Your task to perform on an android device: turn off sleep mode Image 0: 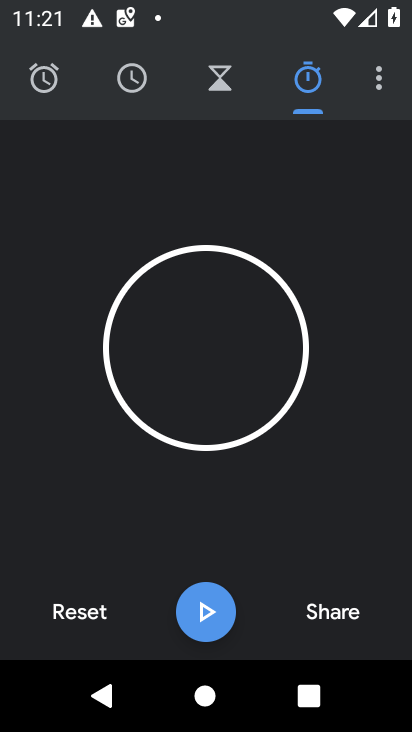
Step 0: press back button
Your task to perform on an android device: turn off sleep mode Image 1: 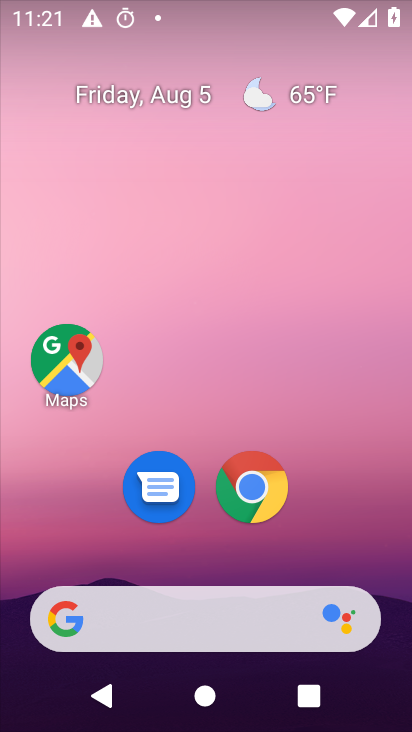
Step 1: drag from (69, 478) to (201, 85)
Your task to perform on an android device: turn off sleep mode Image 2: 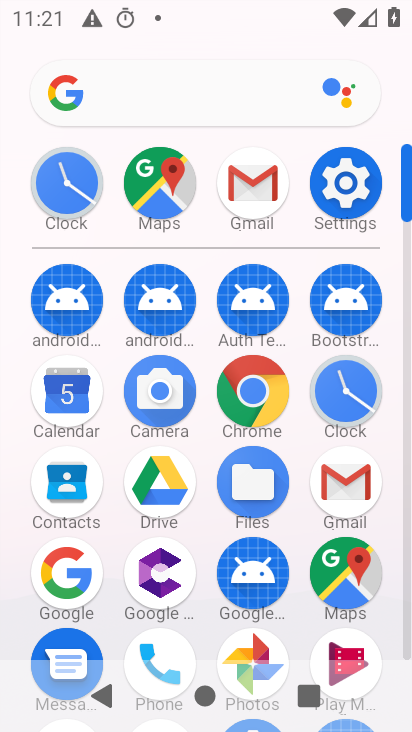
Step 2: click (346, 174)
Your task to perform on an android device: turn off sleep mode Image 3: 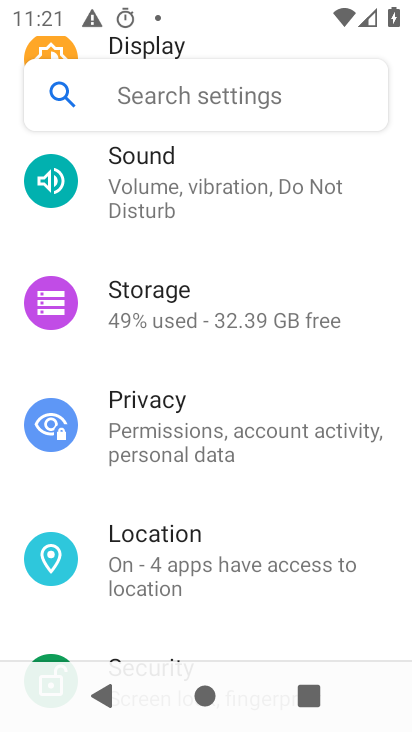
Step 3: click (212, 93)
Your task to perform on an android device: turn off sleep mode Image 4: 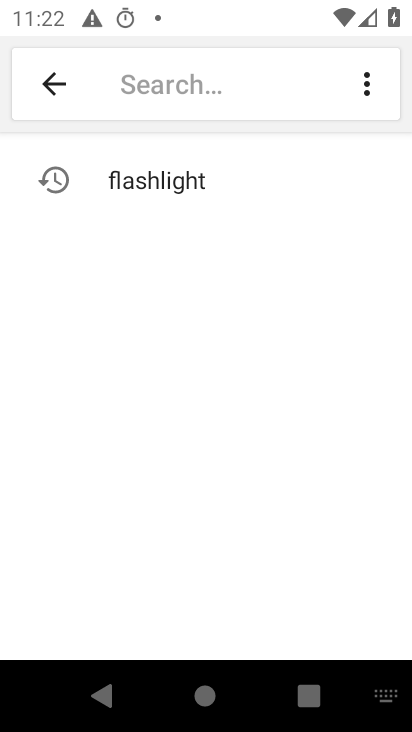
Step 4: type "sleep mode"
Your task to perform on an android device: turn off sleep mode Image 5: 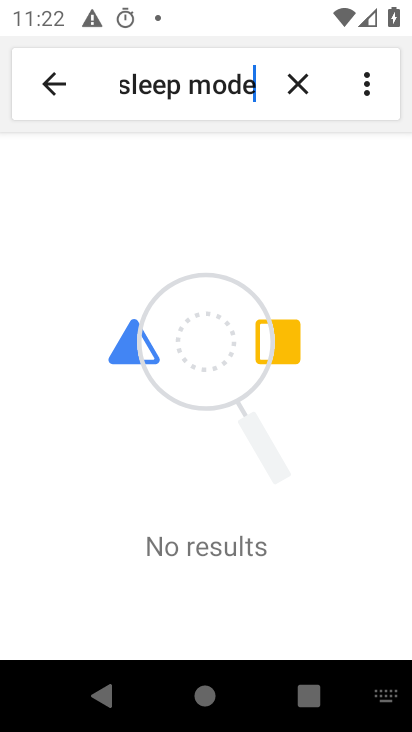
Step 5: task complete